Your task to perform on an android device: toggle priority inbox in the gmail app Image 0: 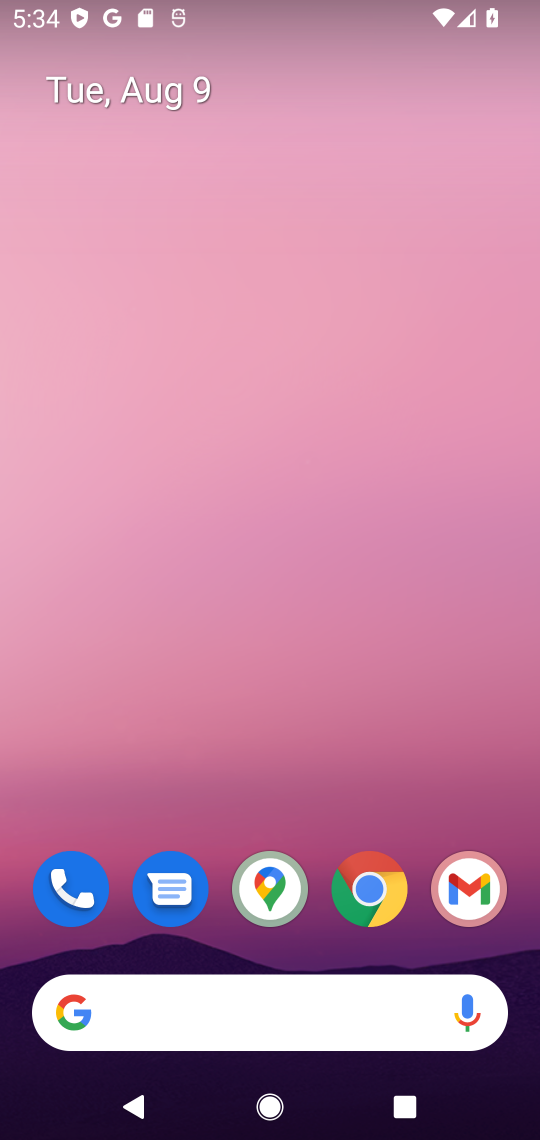
Step 0: drag from (297, 992) to (261, 399)
Your task to perform on an android device: toggle priority inbox in the gmail app Image 1: 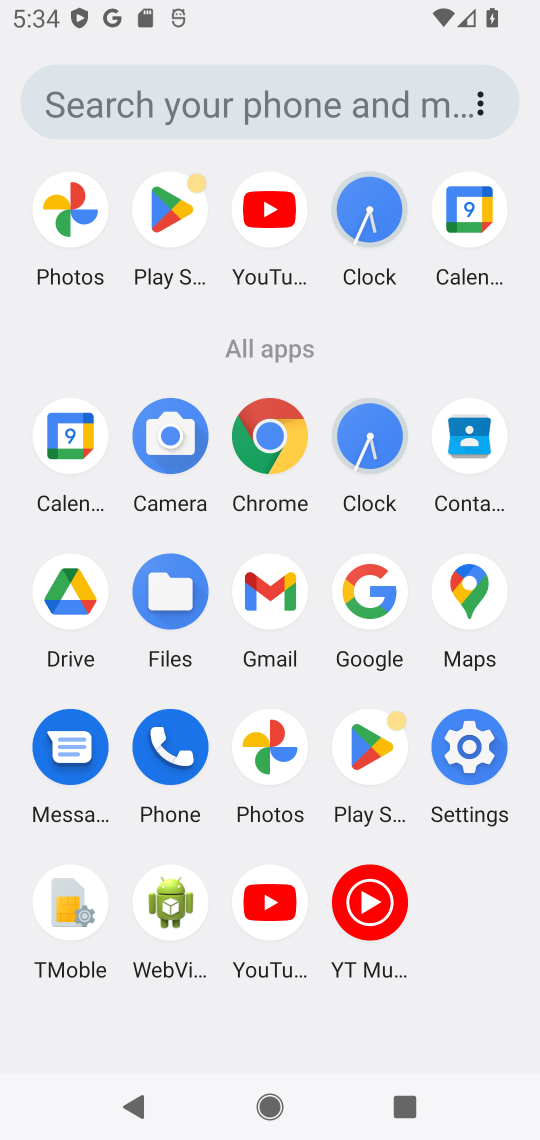
Step 1: click (264, 599)
Your task to perform on an android device: toggle priority inbox in the gmail app Image 2: 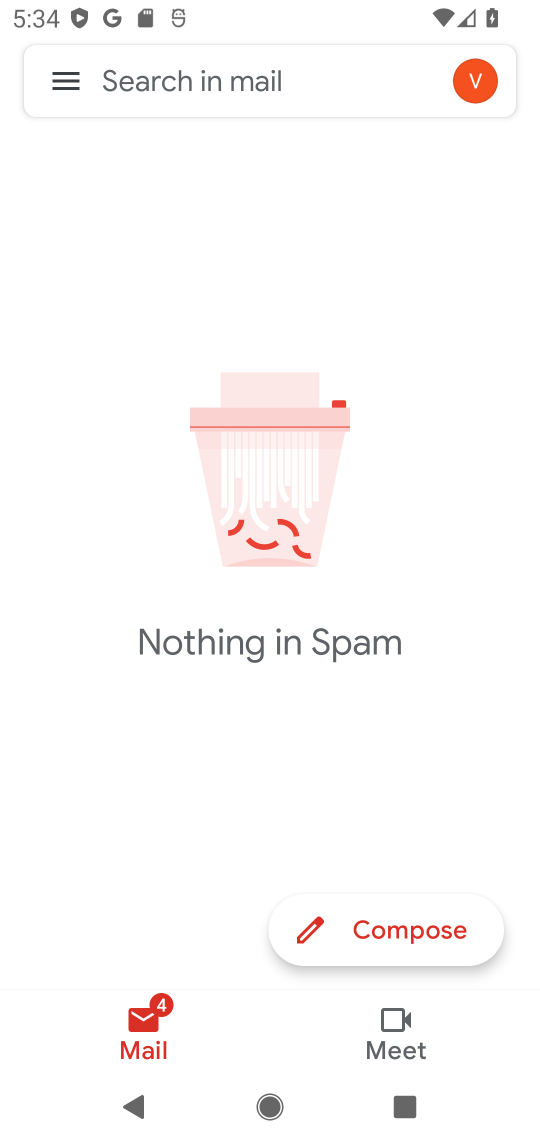
Step 2: click (64, 65)
Your task to perform on an android device: toggle priority inbox in the gmail app Image 3: 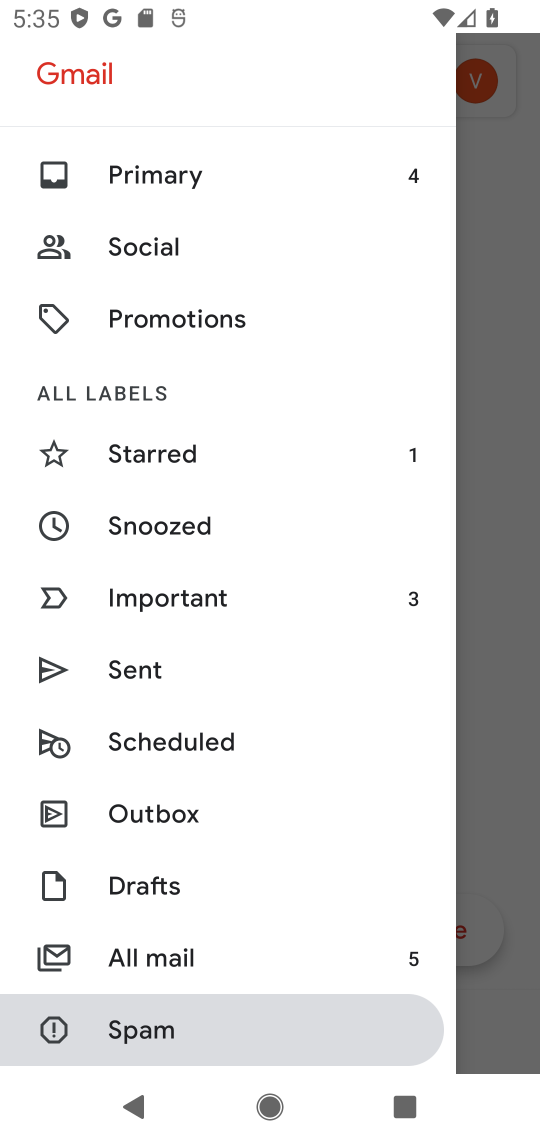
Step 3: drag from (159, 1009) to (112, 272)
Your task to perform on an android device: toggle priority inbox in the gmail app Image 4: 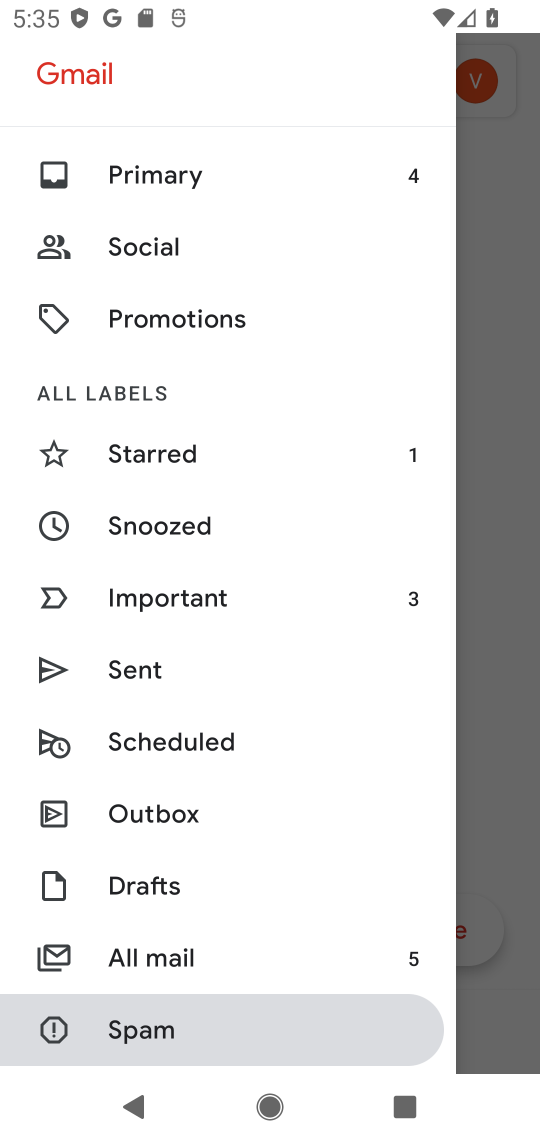
Step 4: drag from (175, 964) to (129, 213)
Your task to perform on an android device: toggle priority inbox in the gmail app Image 5: 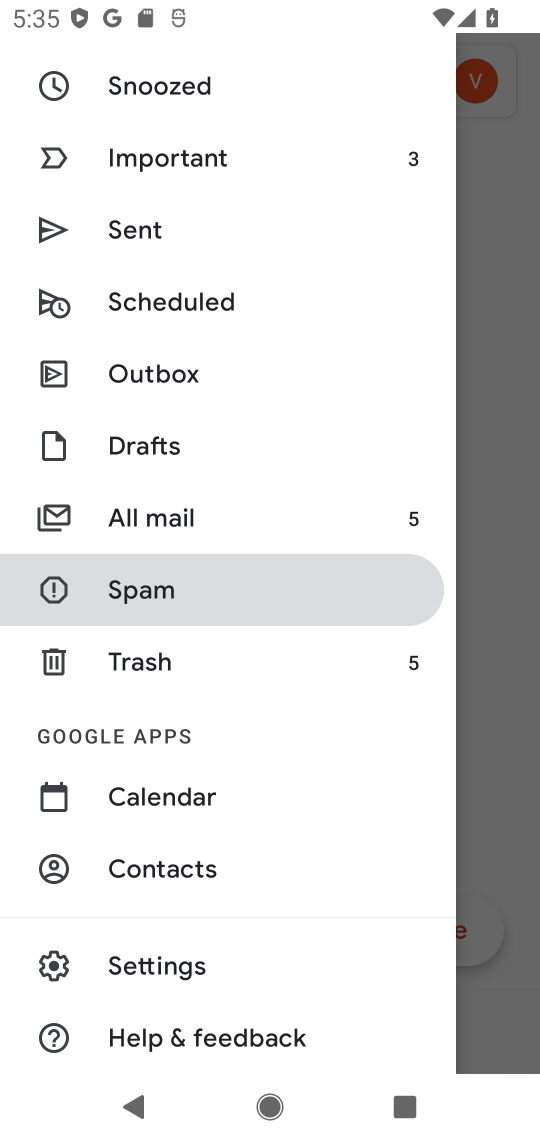
Step 5: click (167, 972)
Your task to perform on an android device: toggle priority inbox in the gmail app Image 6: 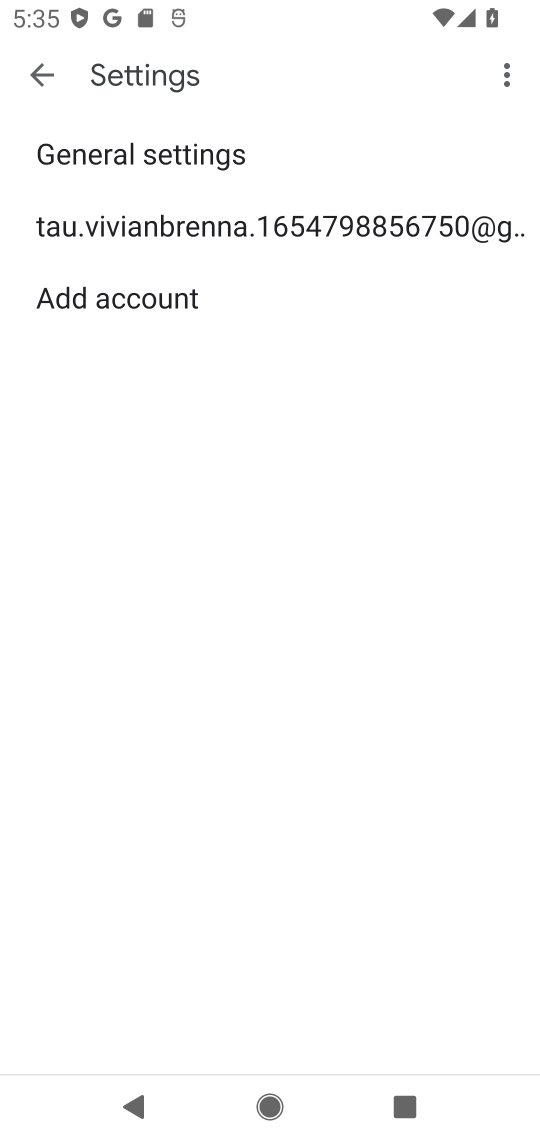
Step 6: click (290, 220)
Your task to perform on an android device: toggle priority inbox in the gmail app Image 7: 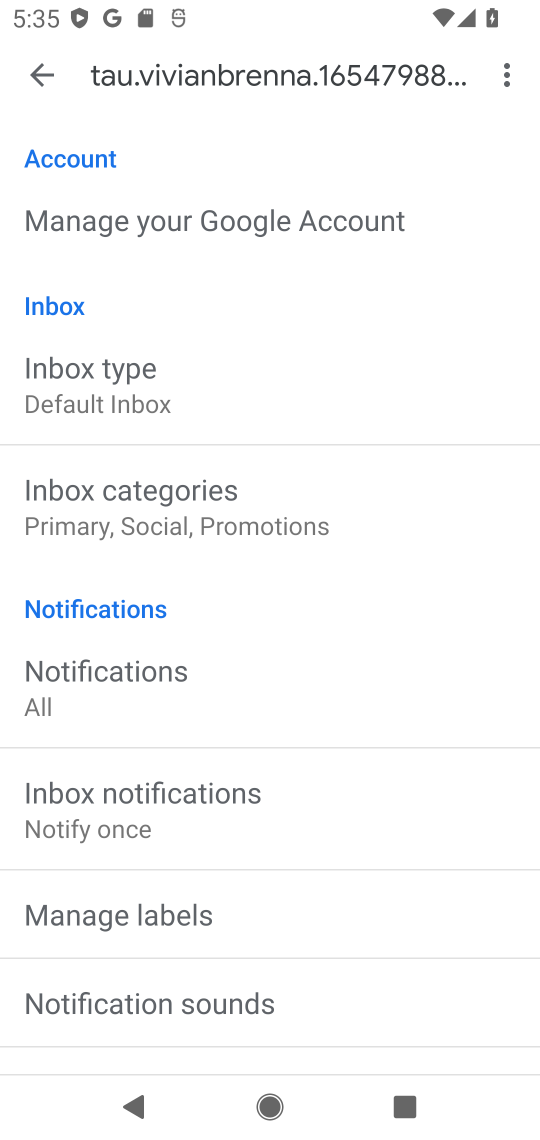
Step 7: click (169, 397)
Your task to perform on an android device: toggle priority inbox in the gmail app Image 8: 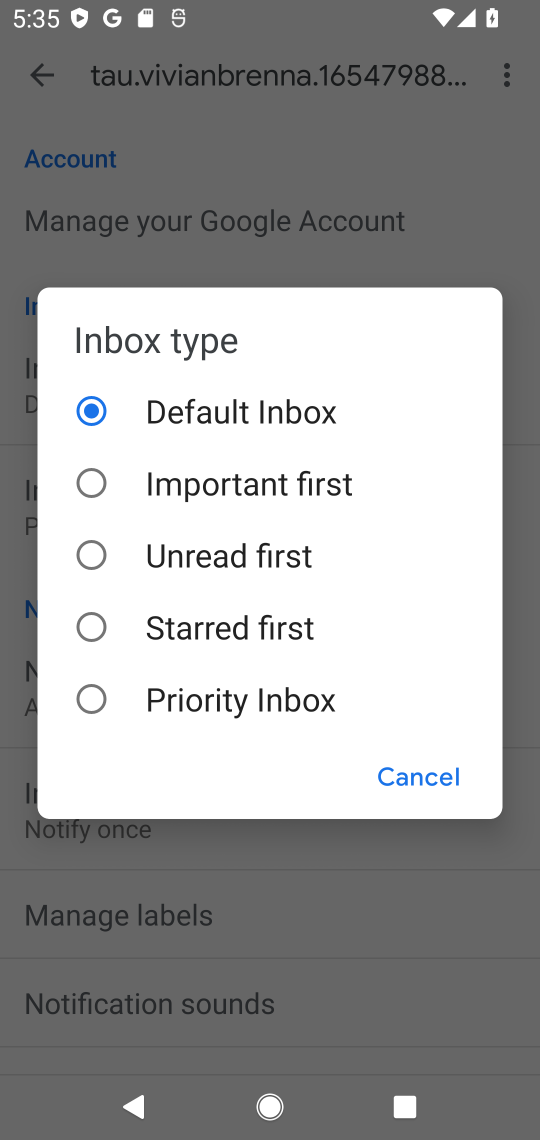
Step 8: click (212, 710)
Your task to perform on an android device: toggle priority inbox in the gmail app Image 9: 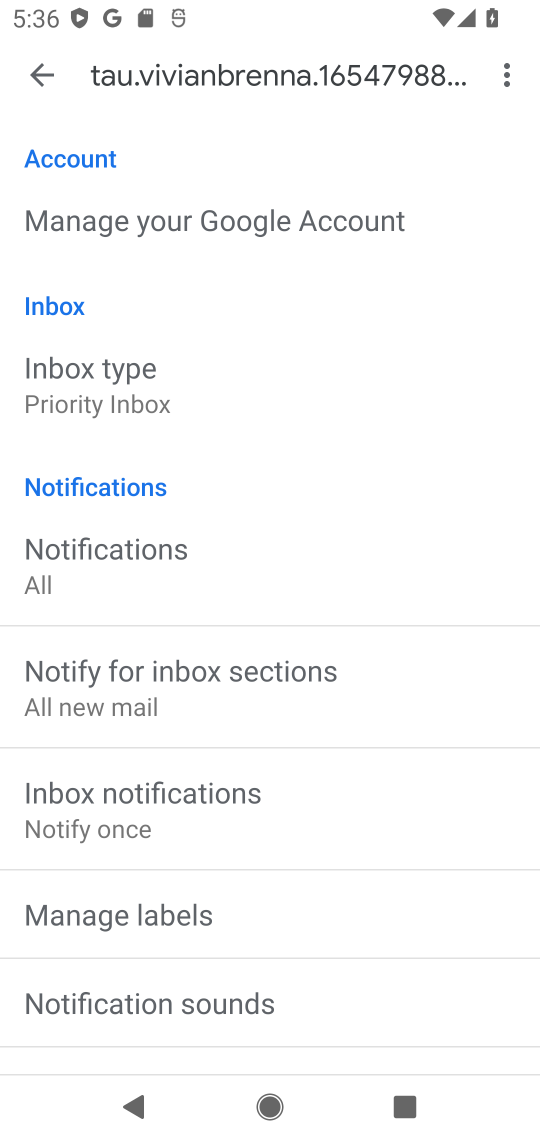
Step 9: task complete